Your task to perform on an android device: delete a single message in the gmail app Image 0: 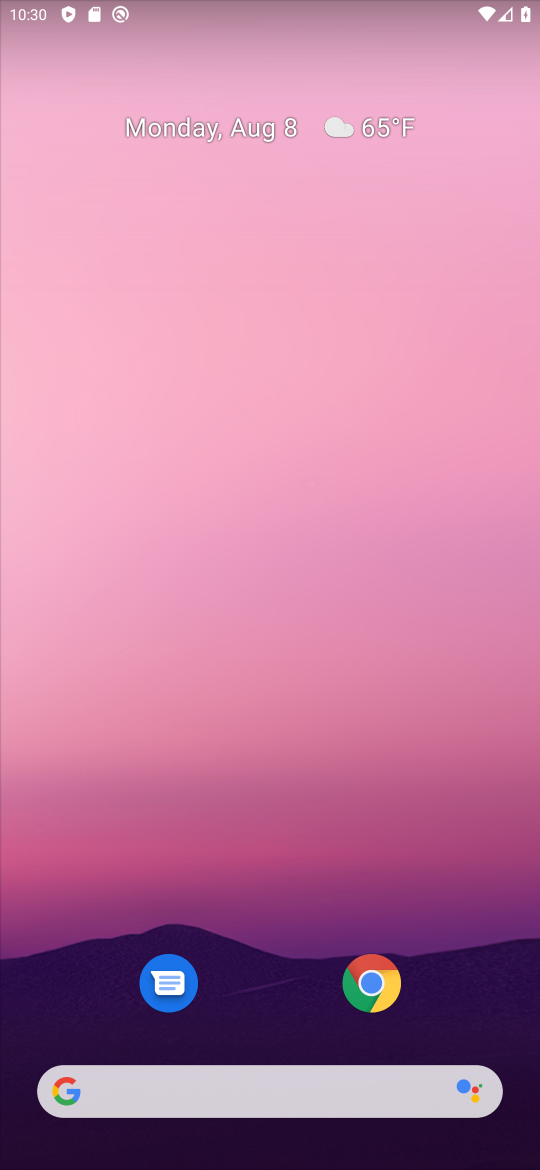
Step 0: task complete